Your task to perform on an android device: Open location settings Image 0: 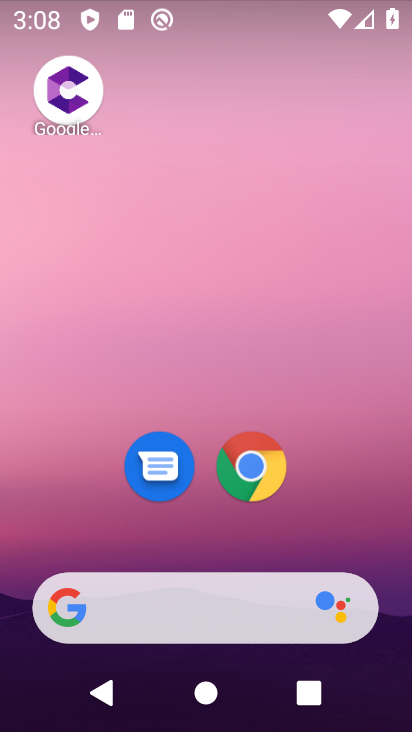
Step 0: drag from (374, 518) to (378, 30)
Your task to perform on an android device: Open location settings Image 1: 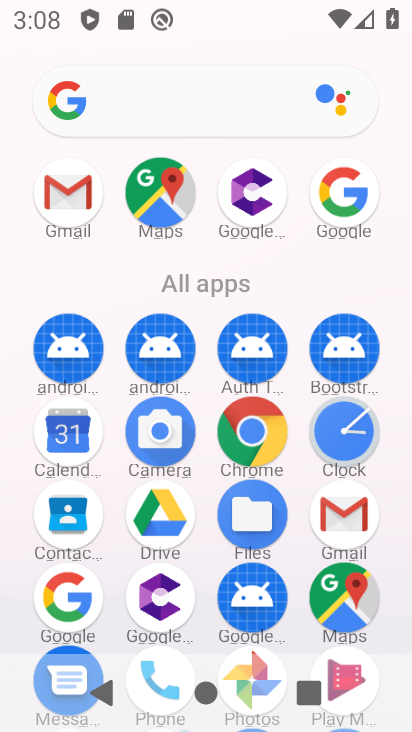
Step 1: drag from (112, 644) to (146, 352)
Your task to perform on an android device: Open location settings Image 2: 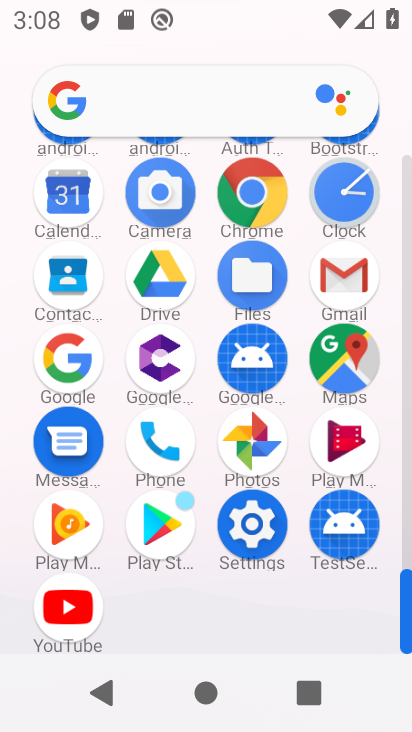
Step 2: click (257, 526)
Your task to perform on an android device: Open location settings Image 3: 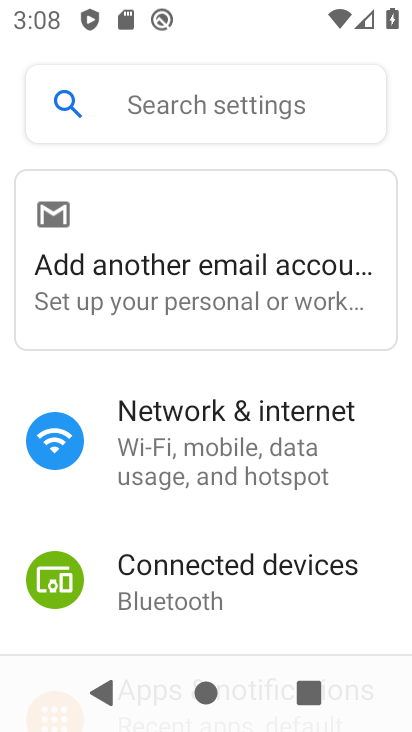
Step 3: drag from (282, 630) to (317, 126)
Your task to perform on an android device: Open location settings Image 4: 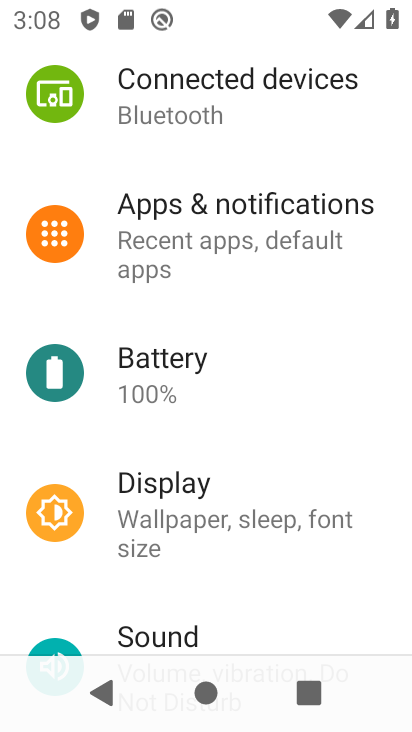
Step 4: drag from (240, 614) to (231, 242)
Your task to perform on an android device: Open location settings Image 5: 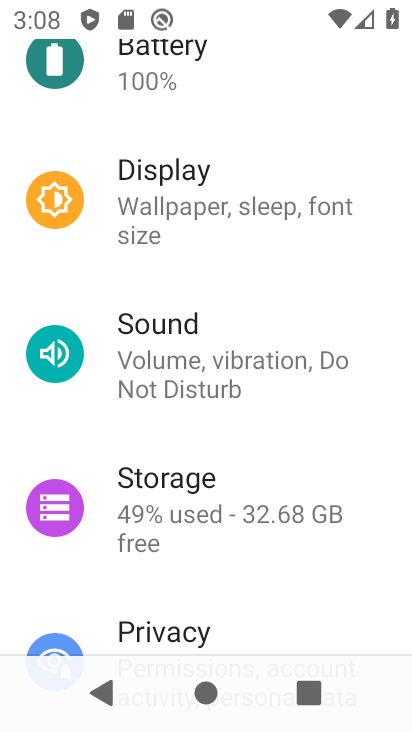
Step 5: drag from (295, 627) to (282, 246)
Your task to perform on an android device: Open location settings Image 6: 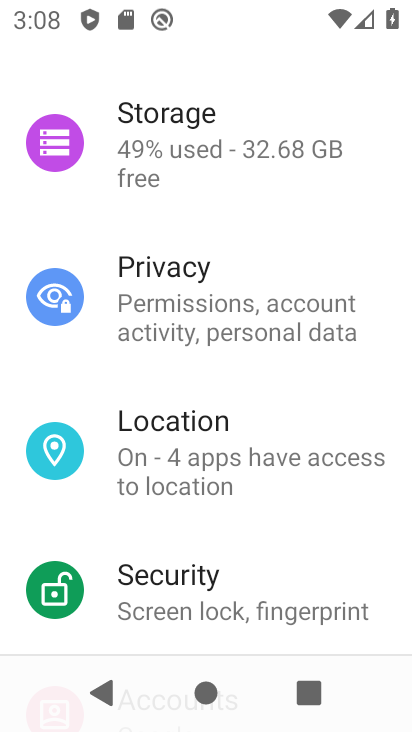
Step 6: click (180, 454)
Your task to perform on an android device: Open location settings Image 7: 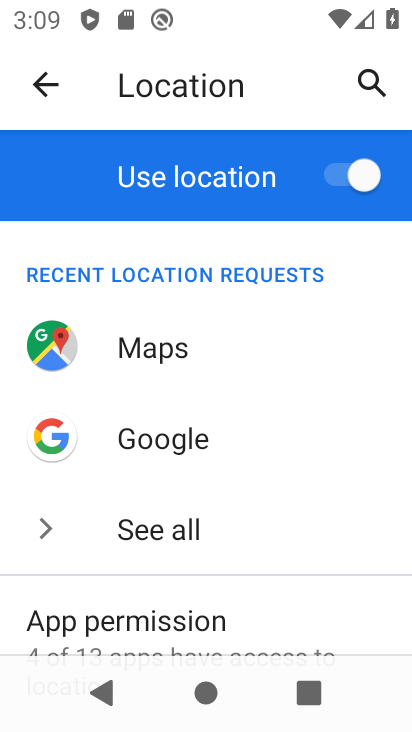
Step 7: task complete